Your task to perform on an android device: Open Google Chrome Image 0: 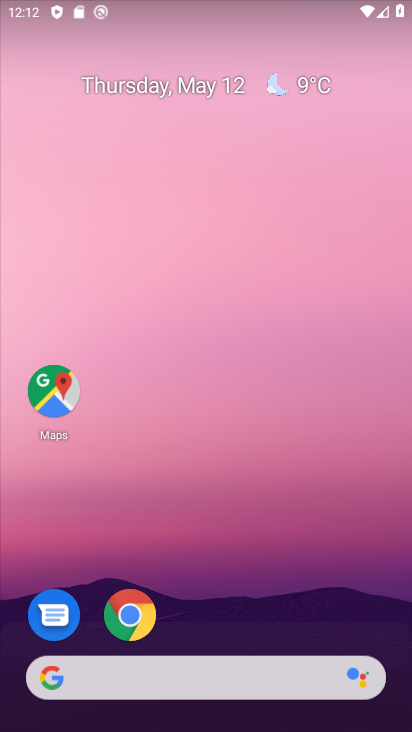
Step 0: click (133, 615)
Your task to perform on an android device: Open Google Chrome Image 1: 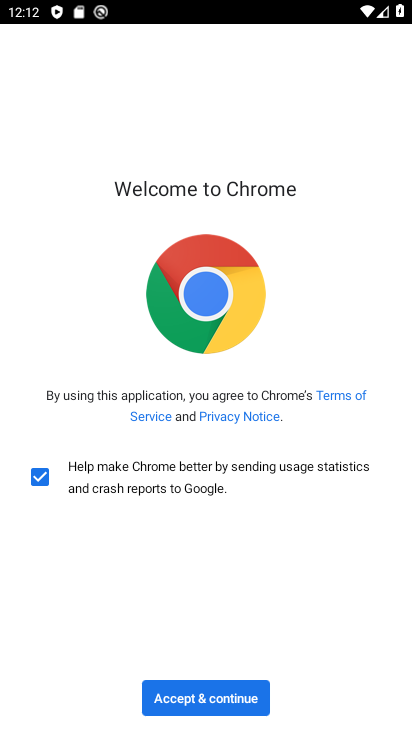
Step 1: click (207, 695)
Your task to perform on an android device: Open Google Chrome Image 2: 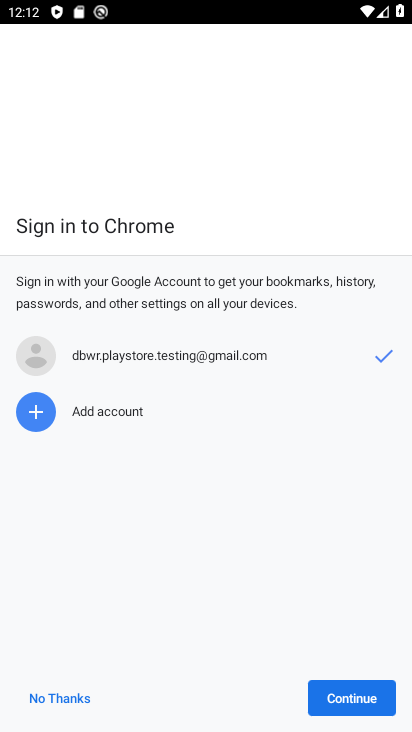
Step 2: click (342, 705)
Your task to perform on an android device: Open Google Chrome Image 3: 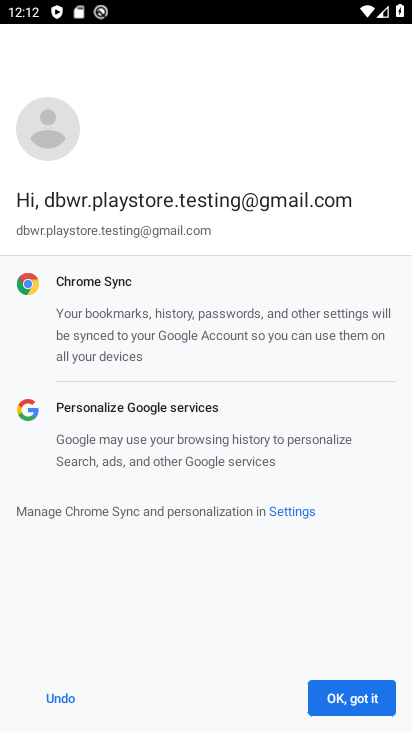
Step 3: click (342, 705)
Your task to perform on an android device: Open Google Chrome Image 4: 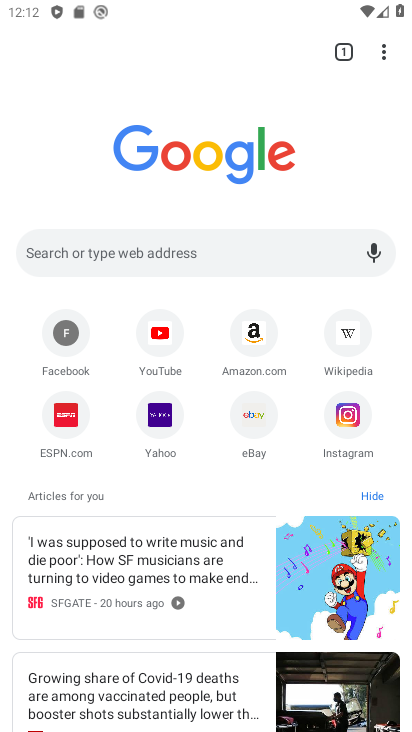
Step 4: task complete